Your task to perform on an android device: toggle show notifications on the lock screen Image 0: 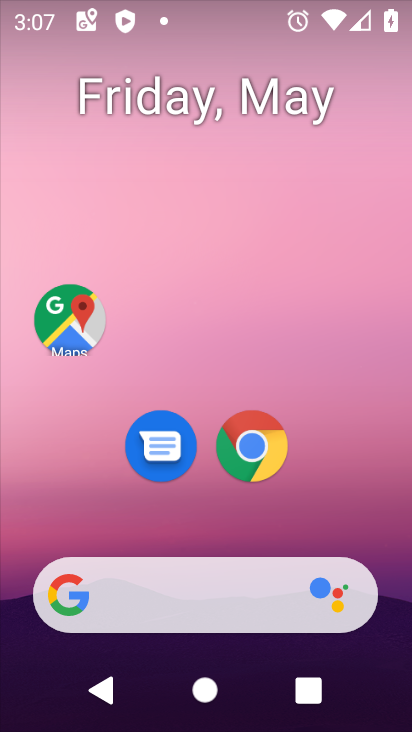
Step 0: drag from (402, 598) to (219, 76)
Your task to perform on an android device: toggle show notifications on the lock screen Image 1: 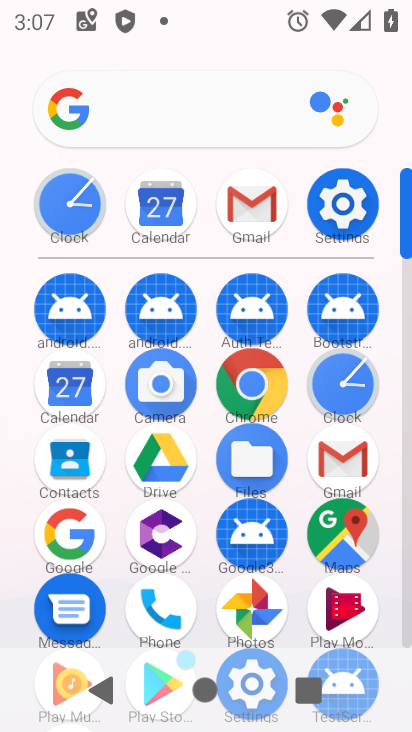
Step 1: click (356, 202)
Your task to perform on an android device: toggle show notifications on the lock screen Image 2: 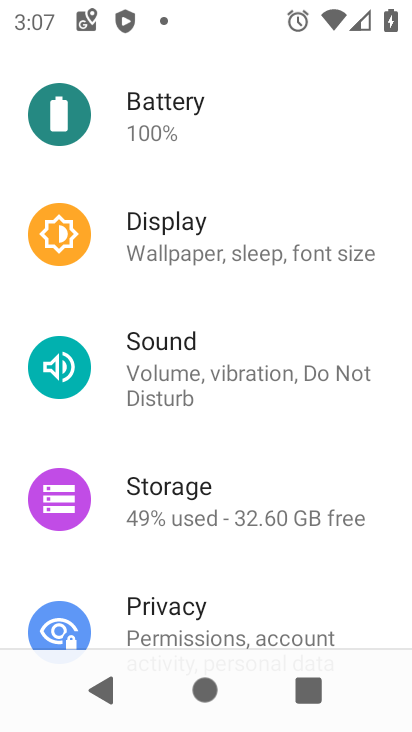
Step 2: drag from (240, 282) to (235, 592)
Your task to perform on an android device: toggle show notifications on the lock screen Image 3: 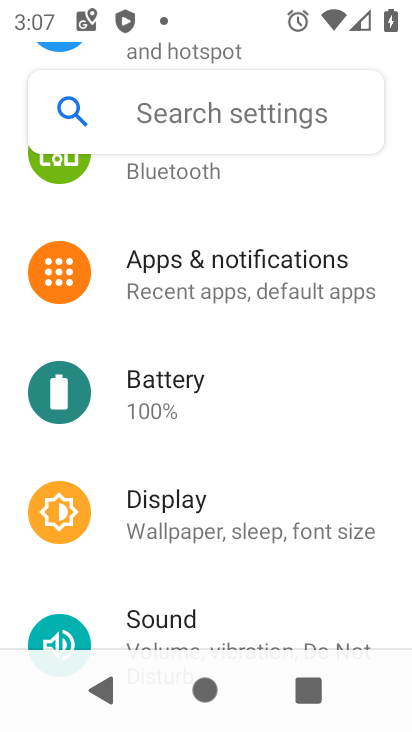
Step 3: drag from (214, 326) to (201, 604)
Your task to perform on an android device: toggle show notifications on the lock screen Image 4: 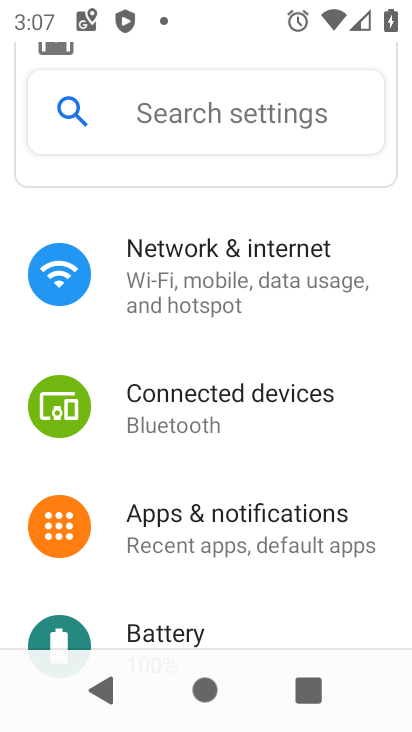
Step 4: click (202, 292)
Your task to perform on an android device: toggle show notifications on the lock screen Image 5: 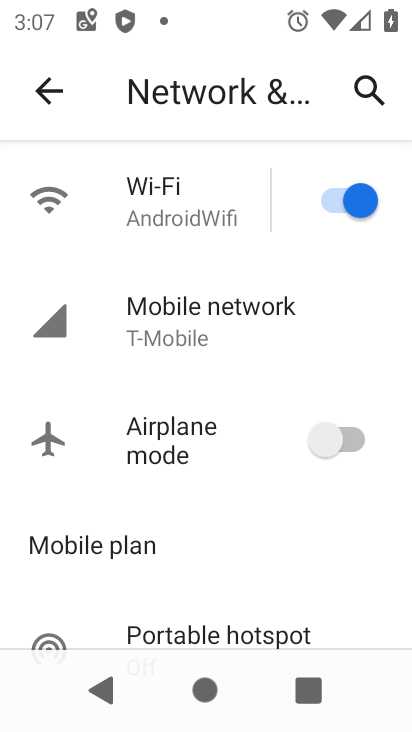
Step 5: click (55, 88)
Your task to perform on an android device: toggle show notifications on the lock screen Image 6: 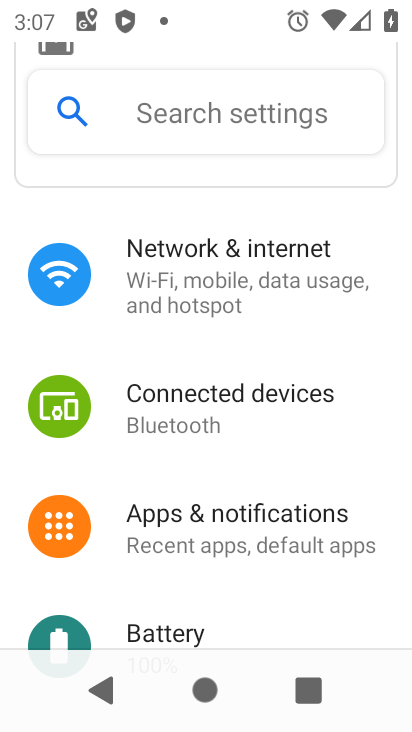
Step 6: click (165, 513)
Your task to perform on an android device: toggle show notifications on the lock screen Image 7: 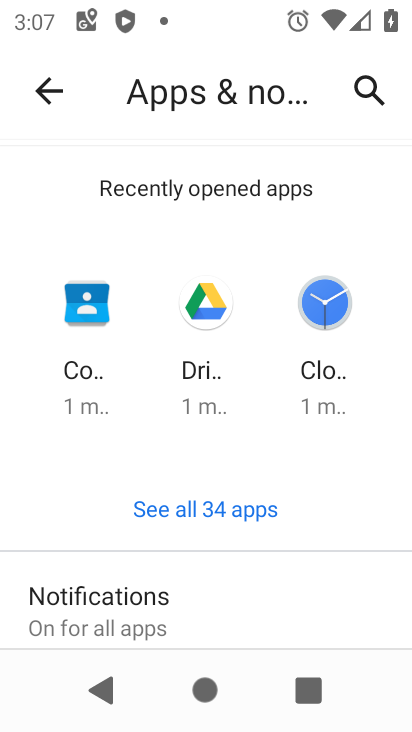
Step 7: drag from (262, 564) to (236, 241)
Your task to perform on an android device: toggle show notifications on the lock screen Image 8: 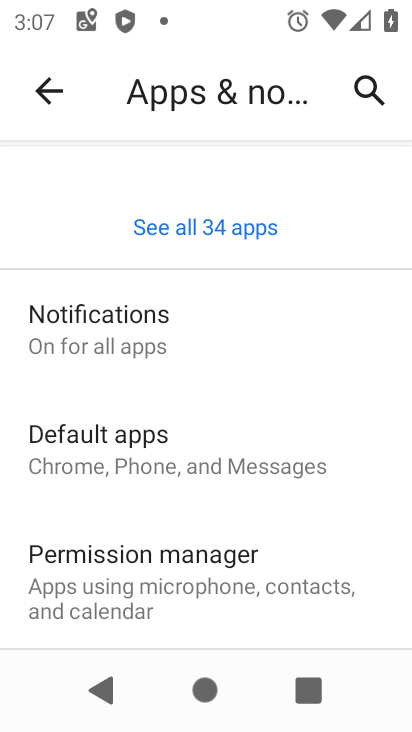
Step 8: click (237, 336)
Your task to perform on an android device: toggle show notifications on the lock screen Image 9: 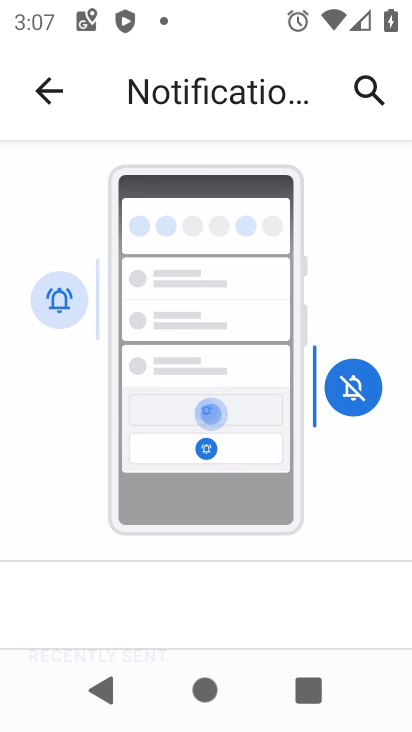
Step 9: drag from (260, 627) to (220, 58)
Your task to perform on an android device: toggle show notifications on the lock screen Image 10: 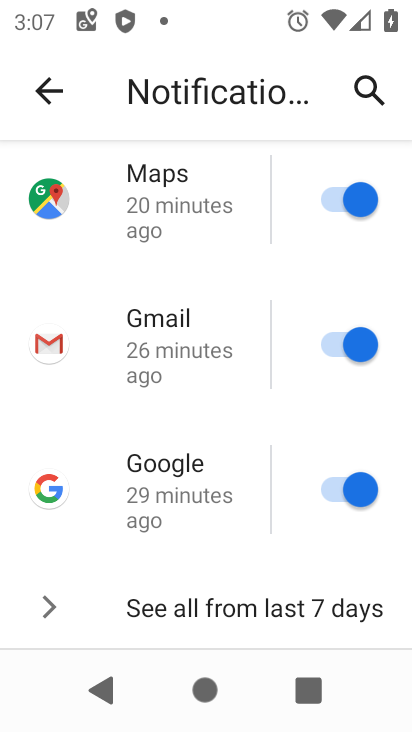
Step 10: drag from (259, 562) to (262, 232)
Your task to perform on an android device: toggle show notifications on the lock screen Image 11: 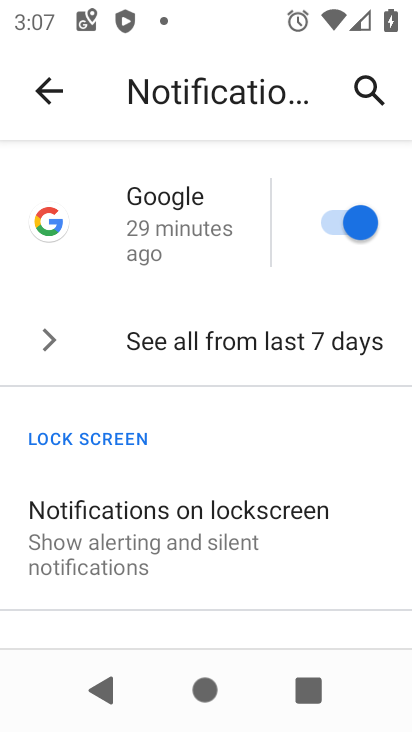
Step 11: click (253, 512)
Your task to perform on an android device: toggle show notifications on the lock screen Image 12: 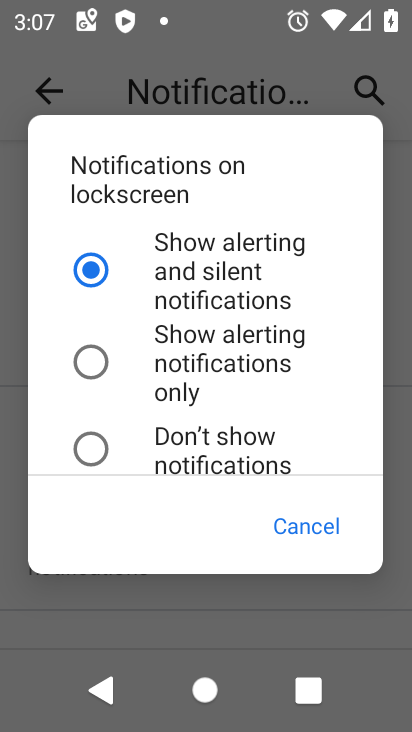
Step 12: click (236, 327)
Your task to perform on an android device: toggle show notifications on the lock screen Image 13: 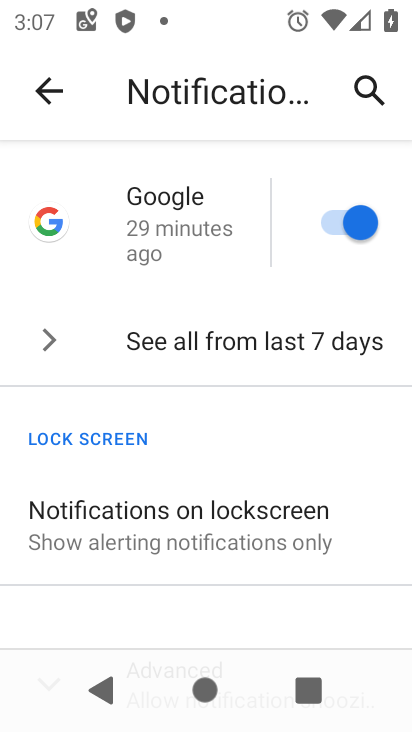
Step 13: task complete